Your task to perform on an android device: Open Youtube and go to the subscriptions tab Image 0: 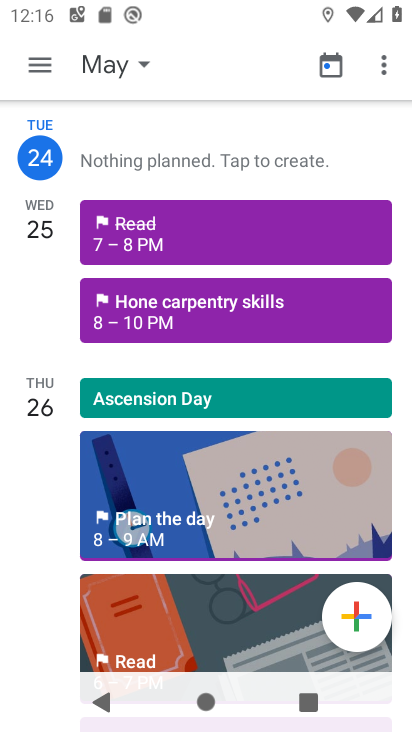
Step 0: press home button
Your task to perform on an android device: Open Youtube and go to the subscriptions tab Image 1: 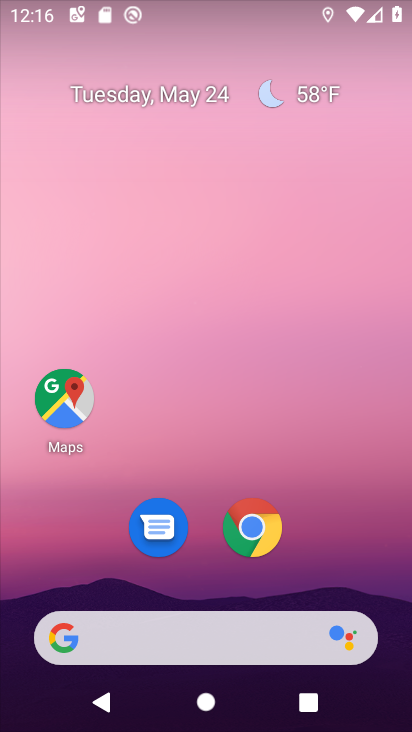
Step 1: drag from (374, 580) to (320, 304)
Your task to perform on an android device: Open Youtube and go to the subscriptions tab Image 2: 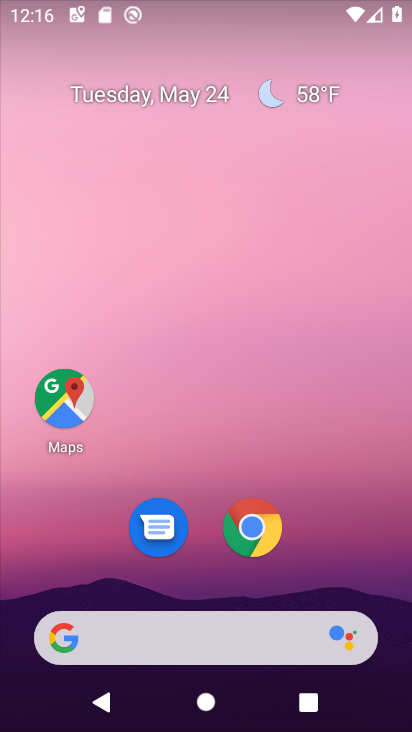
Step 2: drag from (388, 555) to (293, 145)
Your task to perform on an android device: Open Youtube and go to the subscriptions tab Image 3: 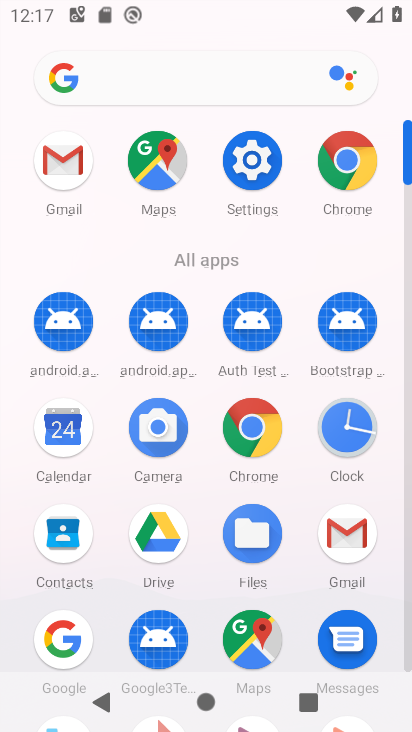
Step 3: click (405, 659)
Your task to perform on an android device: Open Youtube and go to the subscriptions tab Image 4: 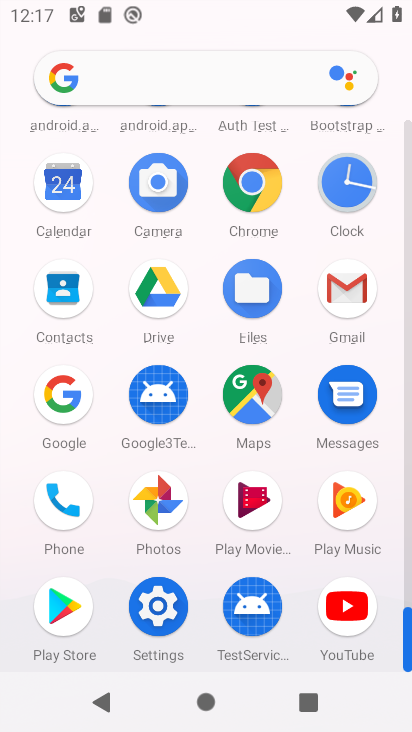
Step 4: click (348, 619)
Your task to perform on an android device: Open Youtube and go to the subscriptions tab Image 5: 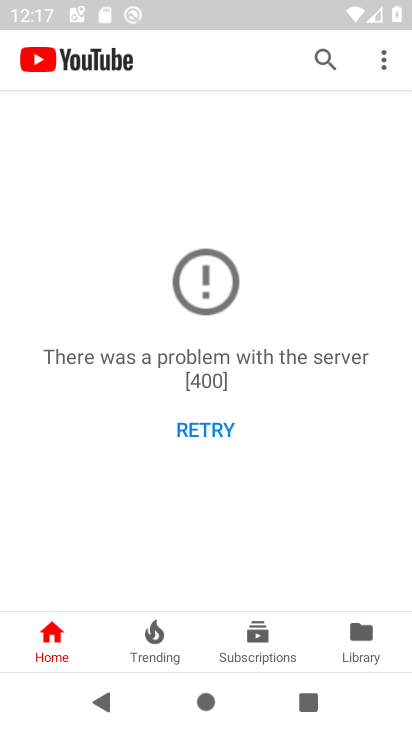
Step 5: click (277, 642)
Your task to perform on an android device: Open Youtube and go to the subscriptions tab Image 6: 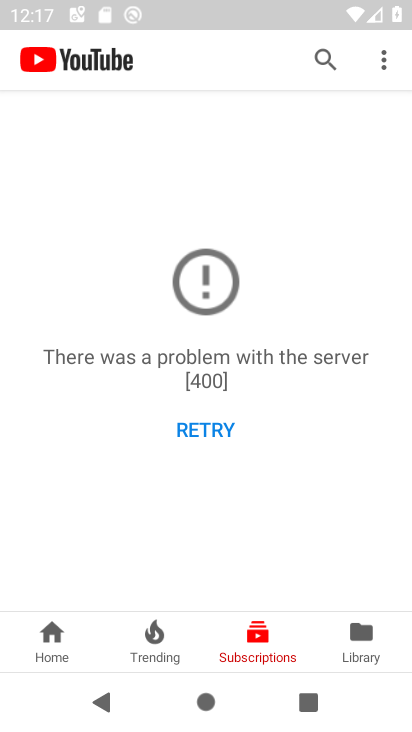
Step 6: task complete